Your task to perform on an android device: set the timer Image 0: 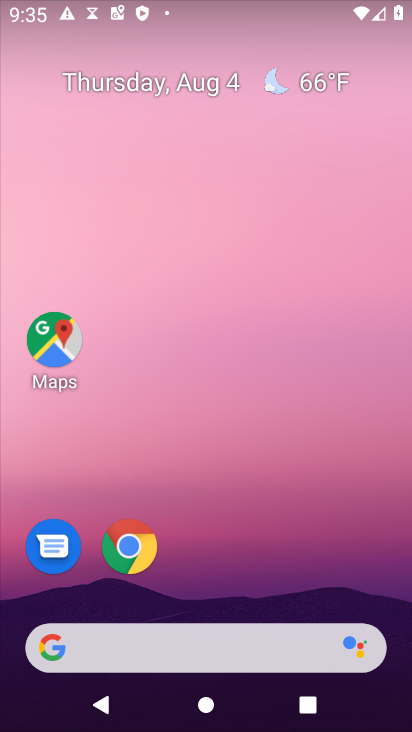
Step 0: press home button
Your task to perform on an android device: set the timer Image 1: 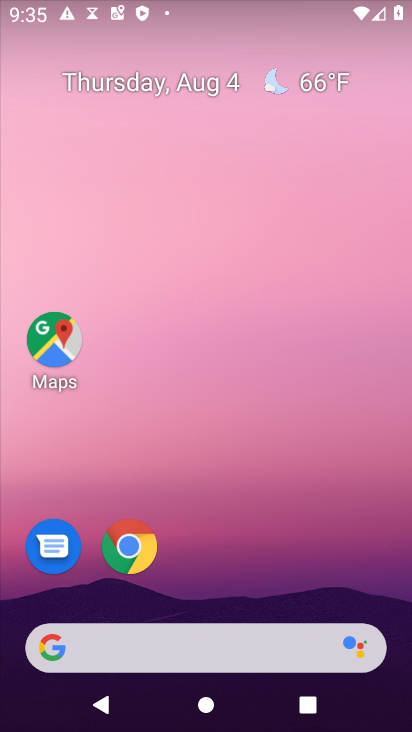
Step 1: drag from (273, 611) to (281, 5)
Your task to perform on an android device: set the timer Image 2: 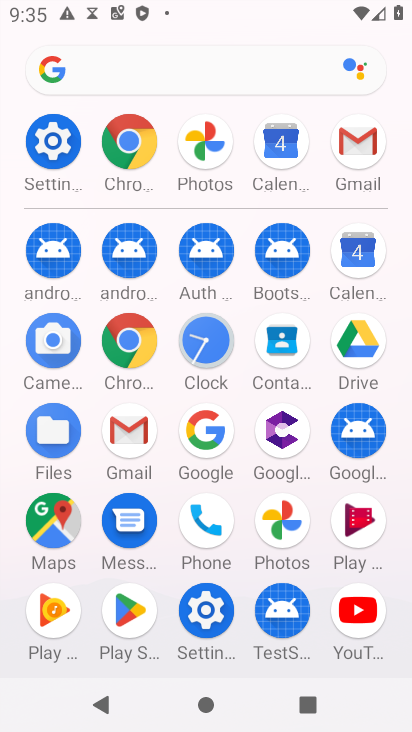
Step 2: click (198, 340)
Your task to perform on an android device: set the timer Image 3: 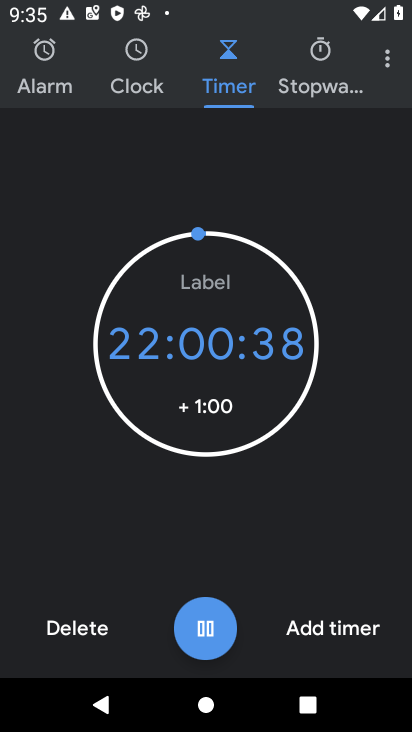
Step 3: task complete